Your task to perform on an android device: visit the assistant section in the google photos Image 0: 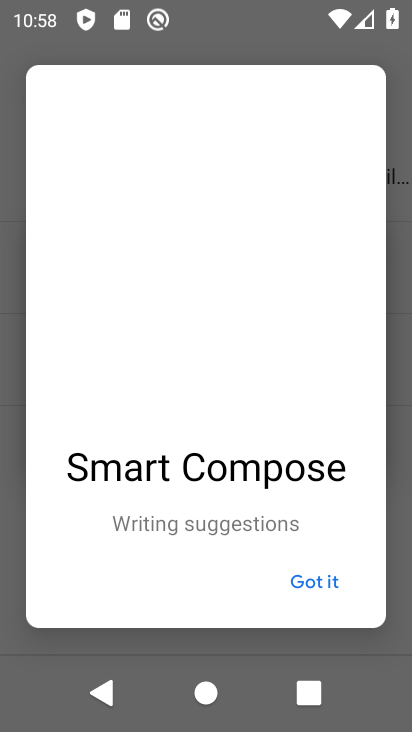
Step 0: press back button
Your task to perform on an android device: visit the assistant section in the google photos Image 1: 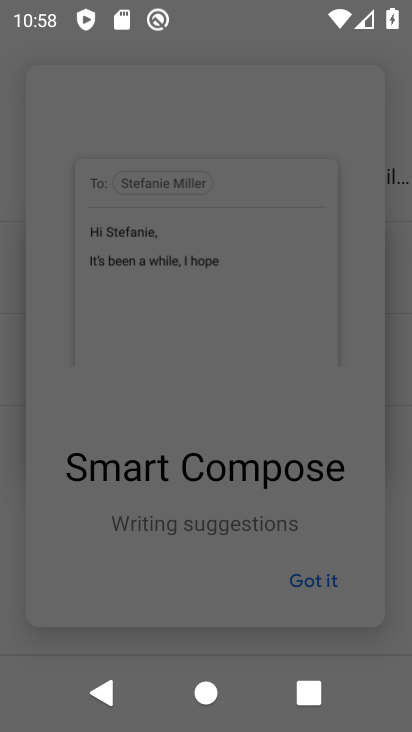
Step 1: press back button
Your task to perform on an android device: visit the assistant section in the google photos Image 2: 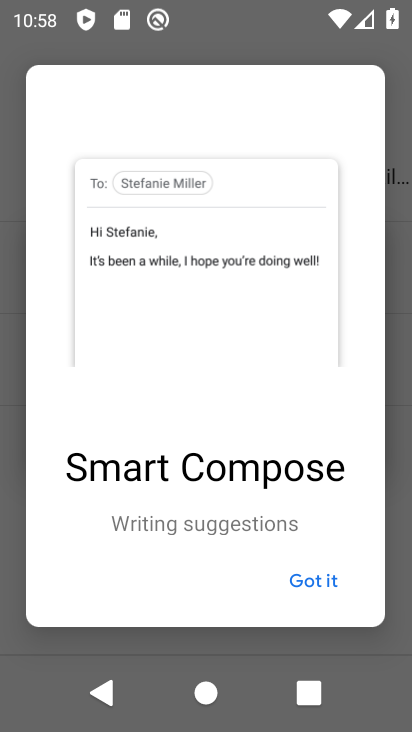
Step 2: press back button
Your task to perform on an android device: visit the assistant section in the google photos Image 3: 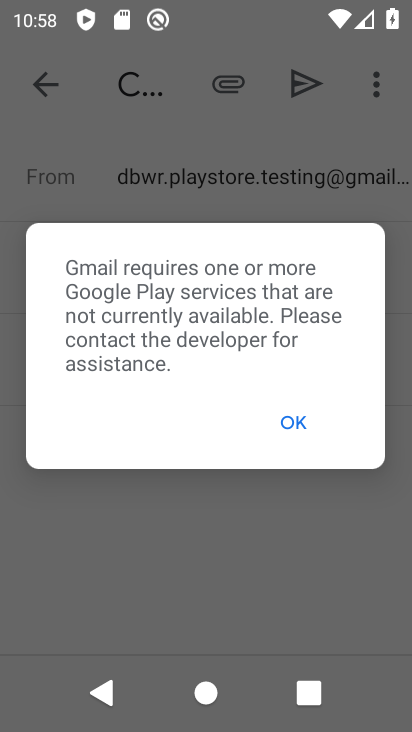
Step 3: press back button
Your task to perform on an android device: visit the assistant section in the google photos Image 4: 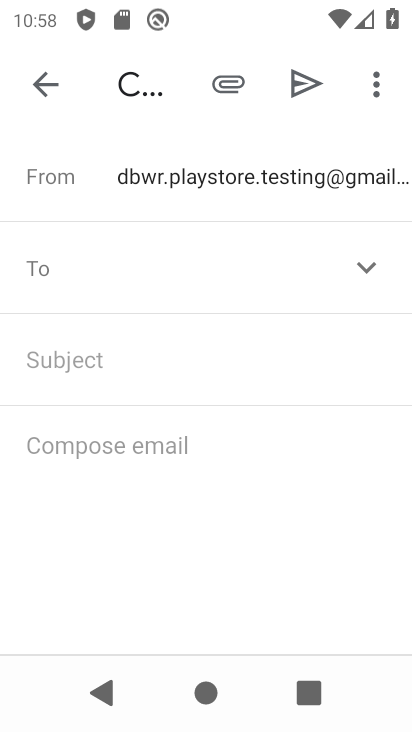
Step 4: press back button
Your task to perform on an android device: visit the assistant section in the google photos Image 5: 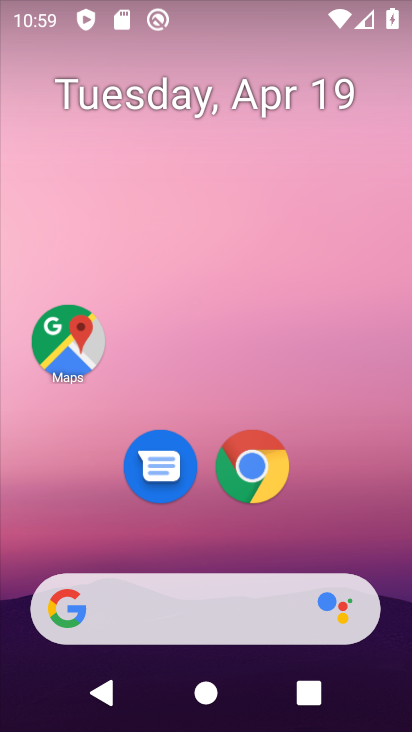
Step 5: drag from (186, 566) to (312, 116)
Your task to perform on an android device: visit the assistant section in the google photos Image 6: 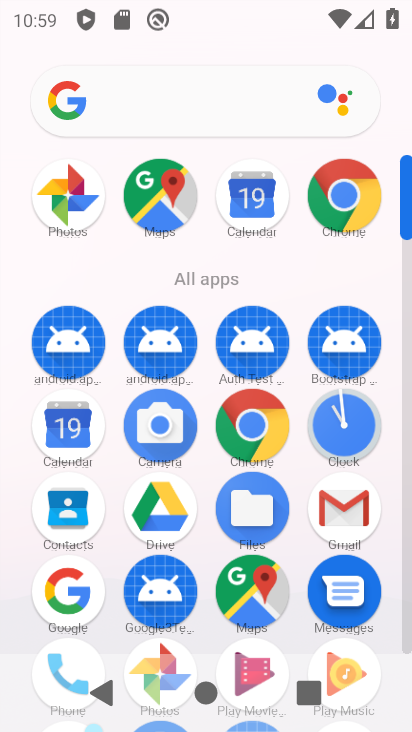
Step 6: click (165, 654)
Your task to perform on an android device: visit the assistant section in the google photos Image 7: 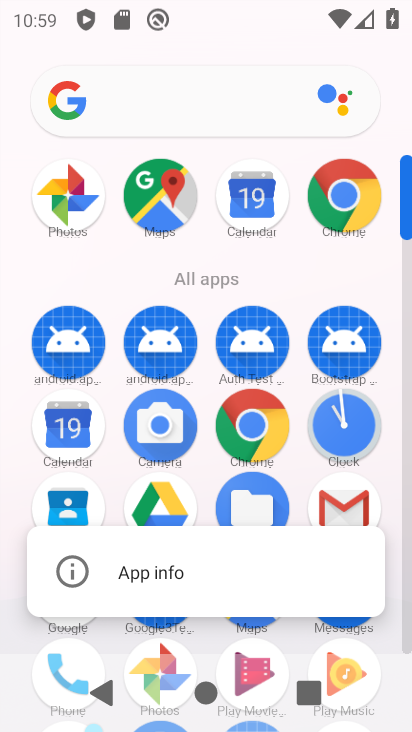
Step 7: click (167, 650)
Your task to perform on an android device: visit the assistant section in the google photos Image 8: 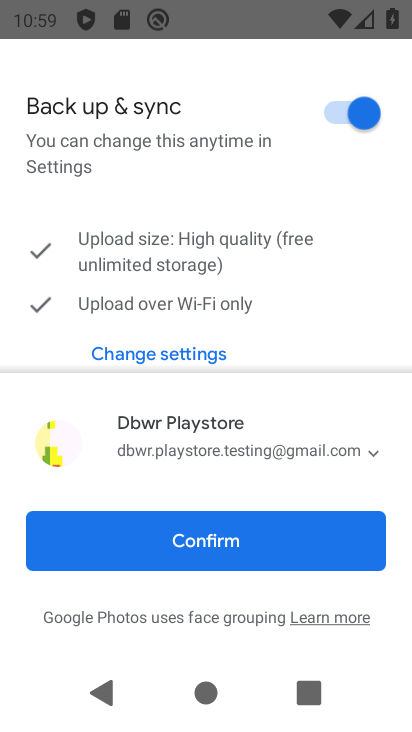
Step 8: click (231, 557)
Your task to perform on an android device: visit the assistant section in the google photos Image 9: 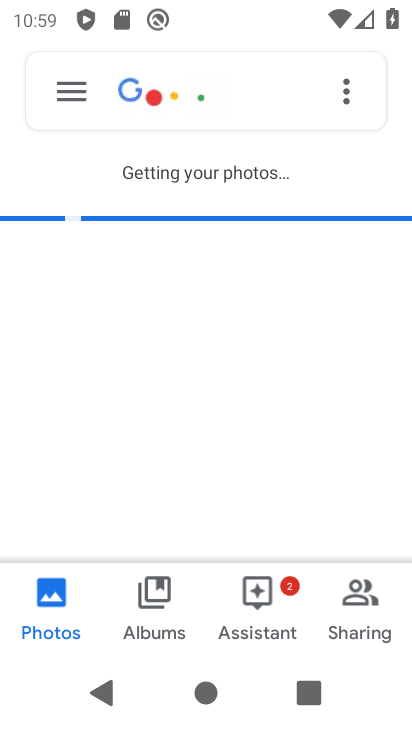
Step 9: click (272, 601)
Your task to perform on an android device: visit the assistant section in the google photos Image 10: 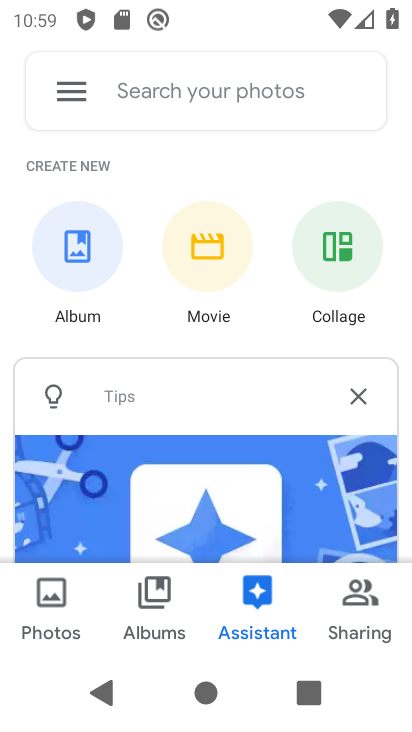
Step 10: task complete